Your task to perform on an android device: Show me recent news Image 0: 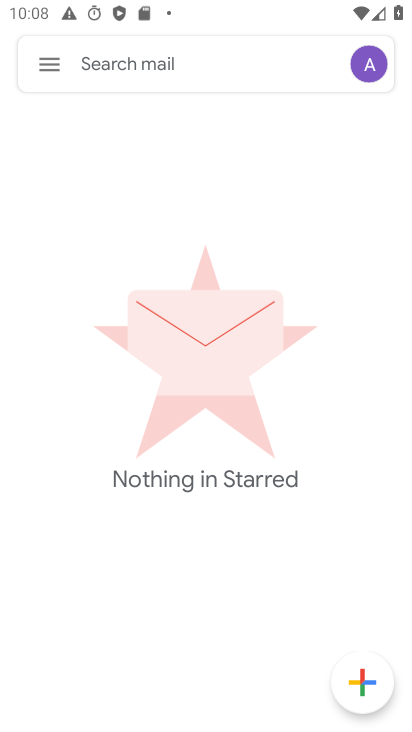
Step 0: press home button
Your task to perform on an android device: Show me recent news Image 1: 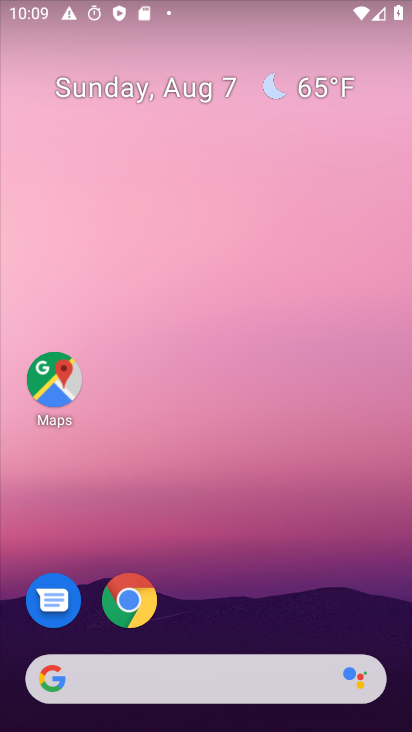
Step 1: drag from (198, 671) to (262, 117)
Your task to perform on an android device: Show me recent news Image 2: 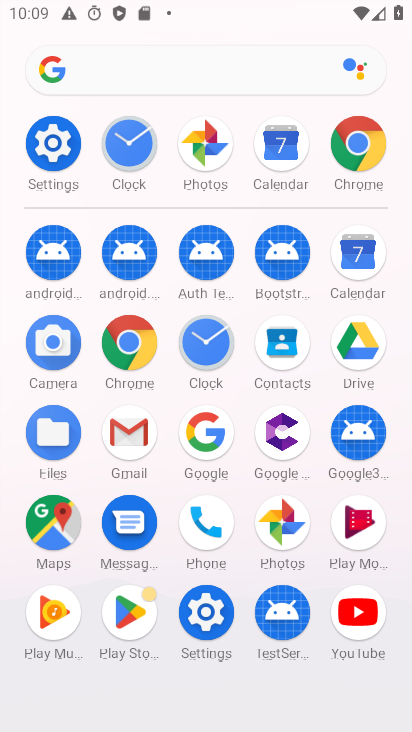
Step 2: click (203, 448)
Your task to perform on an android device: Show me recent news Image 3: 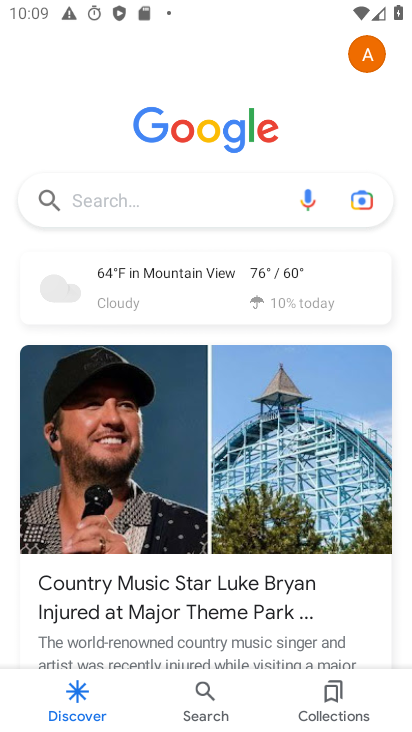
Step 3: click (201, 208)
Your task to perform on an android device: Show me recent news Image 4: 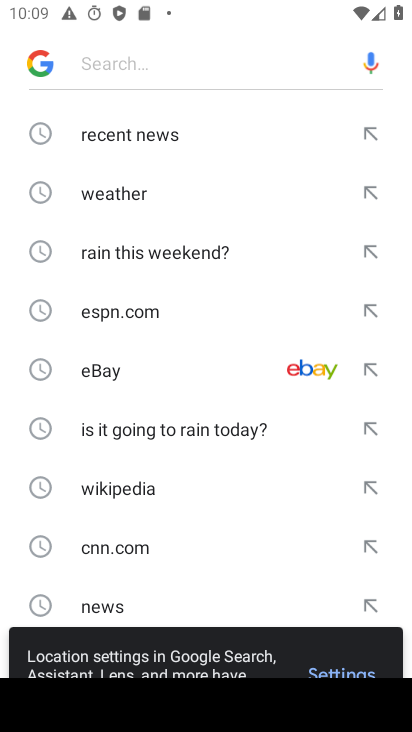
Step 4: click (230, 131)
Your task to perform on an android device: Show me recent news Image 5: 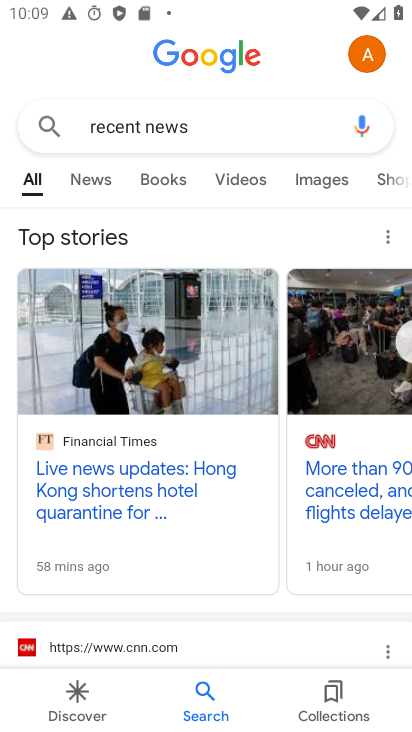
Step 5: task complete